Your task to perform on an android device: Do I have any events this weekend? Image 0: 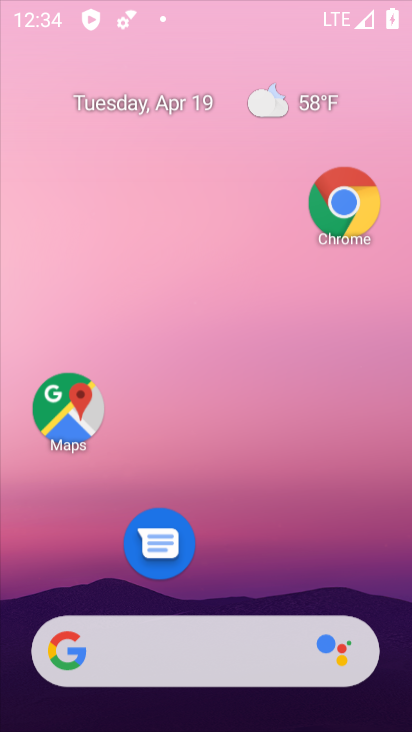
Step 0: click (214, 3)
Your task to perform on an android device: Do I have any events this weekend? Image 1: 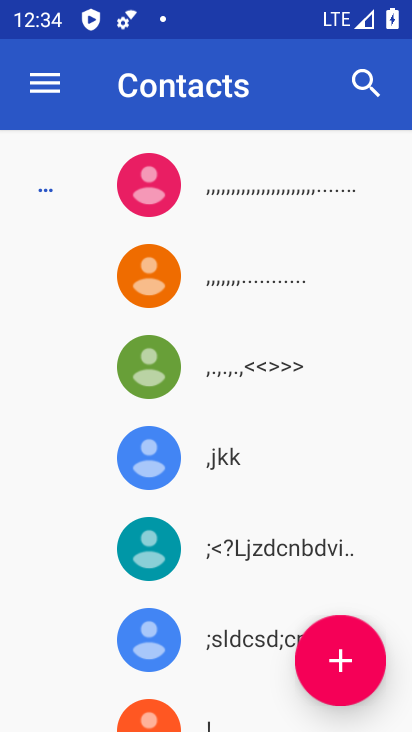
Step 1: press home button
Your task to perform on an android device: Do I have any events this weekend? Image 2: 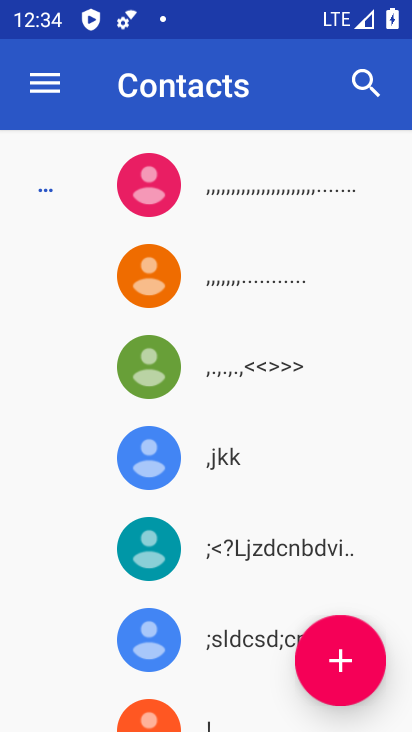
Step 2: press home button
Your task to perform on an android device: Do I have any events this weekend? Image 3: 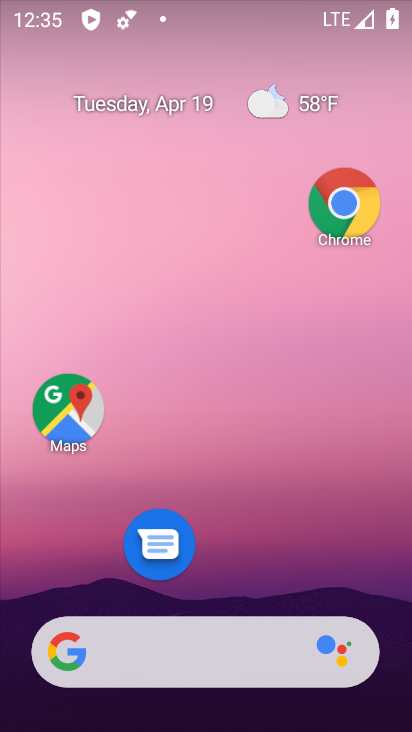
Step 3: drag from (232, 544) to (207, 52)
Your task to perform on an android device: Do I have any events this weekend? Image 4: 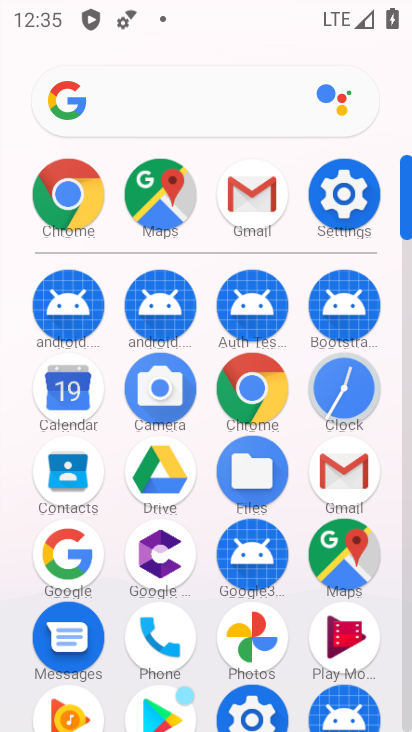
Step 4: click (73, 397)
Your task to perform on an android device: Do I have any events this weekend? Image 5: 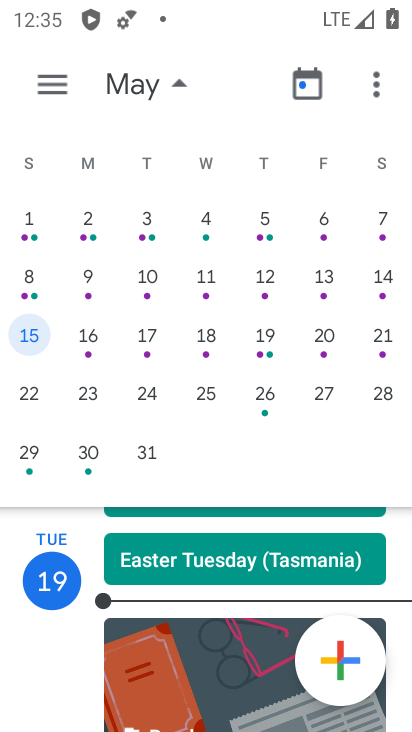
Step 5: click (60, 89)
Your task to perform on an android device: Do I have any events this weekend? Image 6: 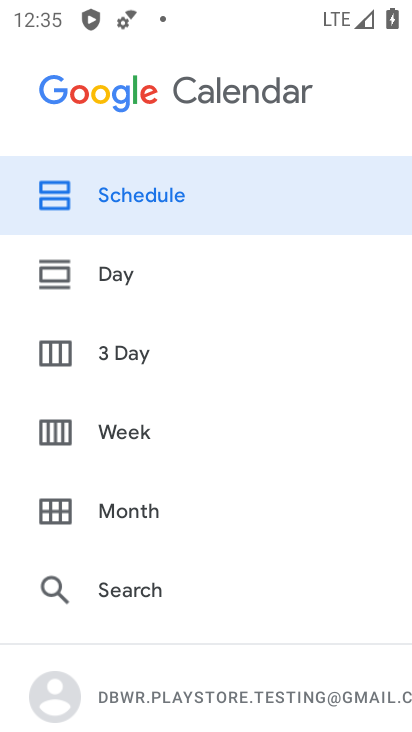
Step 6: drag from (172, 519) to (251, 163)
Your task to perform on an android device: Do I have any events this weekend? Image 7: 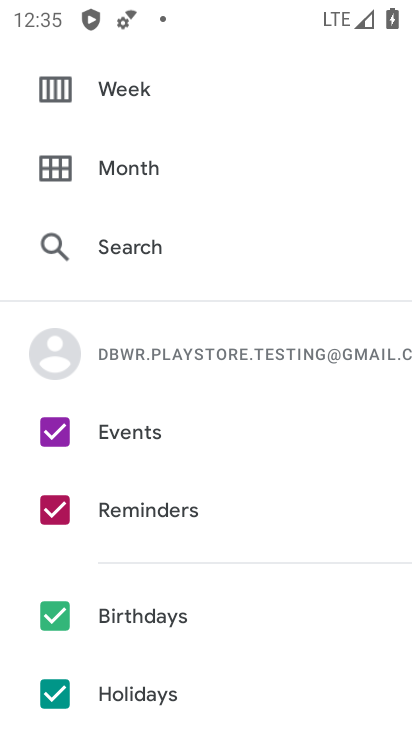
Step 7: drag from (56, 503) to (55, 625)
Your task to perform on an android device: Do I have any events this weekend? Image 8: 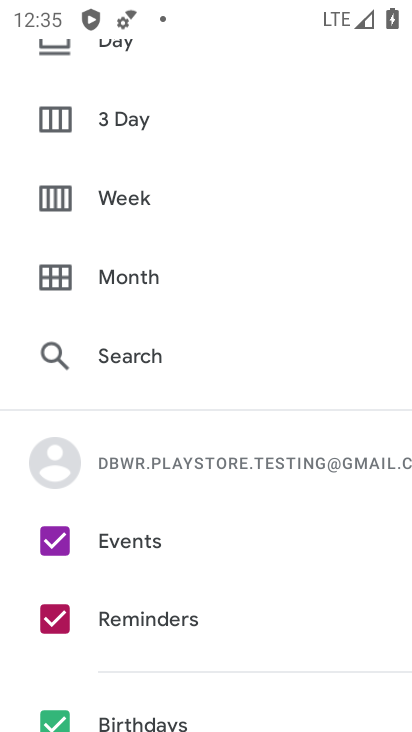
Step 8: click (54, 700)
Your task to perform on an android device: Do I have any events this weekend? Image 9: 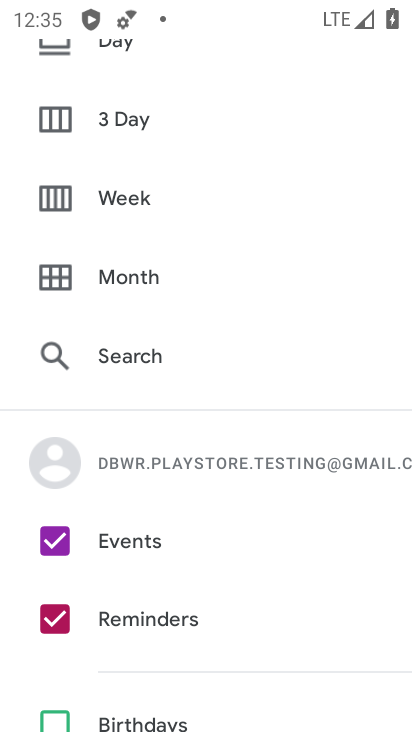
Step 9: drag from (285, 628) to (312, 235)
Your task to perform on an android device: Do I have any events this weekend? Image 10: 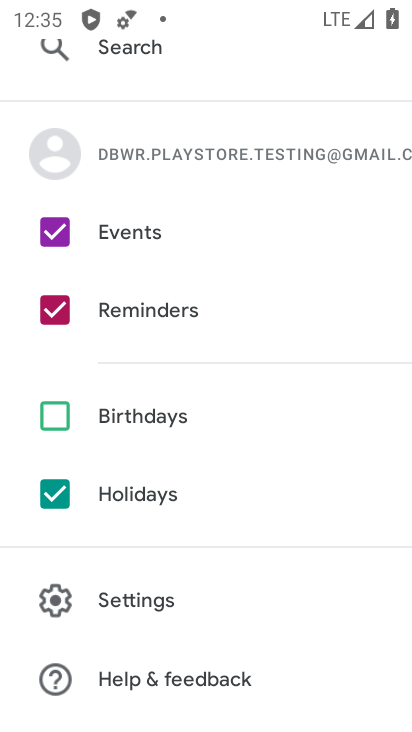
Step 10: click (57, 310)
Your task to perform on an android device: Do I have any events this weekend? Image 11: 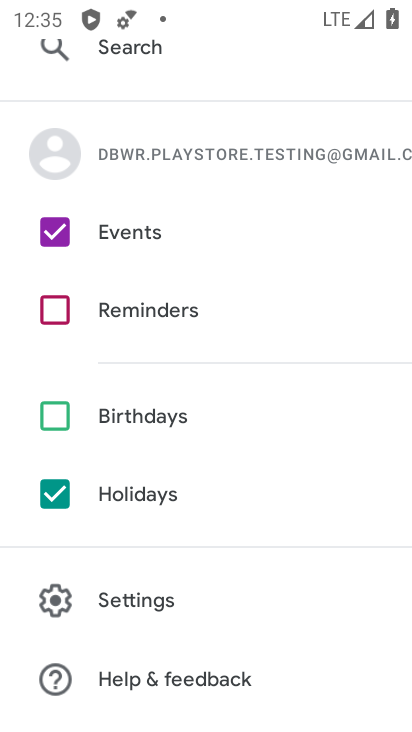
Step 11: click (50, 489)
Your task to perform on an android device: Do I have any events this weekend? Image 12: 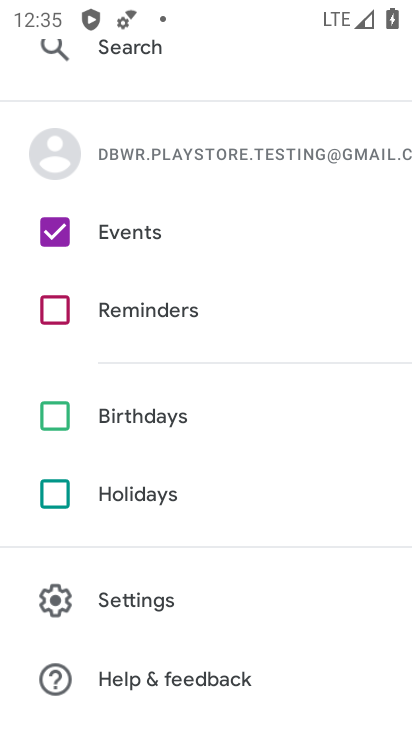
Step 12: drag from (306, 149) to (310, 650)
Your task to perform on an android device: Do I have any events this weekend? Image 13: 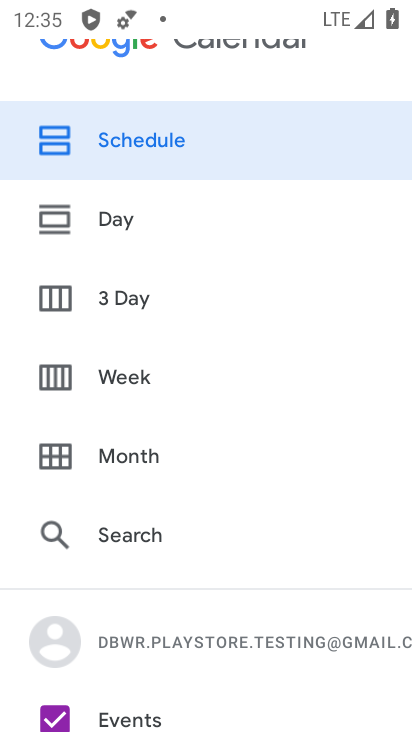
Step 13: click (190, 144)
Your task to perform on an android device: Do I have any events this weekend? Image 14: 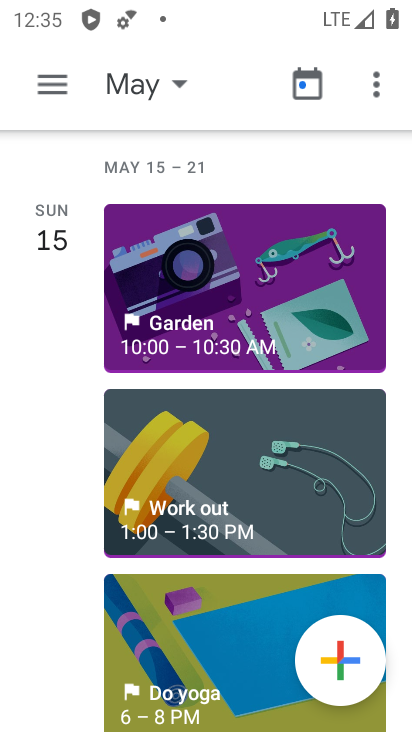
Step 14: click (166, 84)
Your task to perform on an android device: Do I have any events this weekend? Image 15: 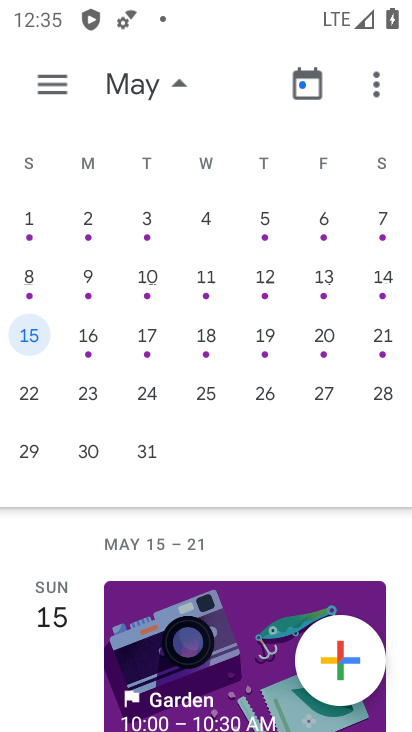
Step 15: drag from (260, 544) to (250, 441)
Your task to perform on an android device: Do I have any events this weekend? Image 16: 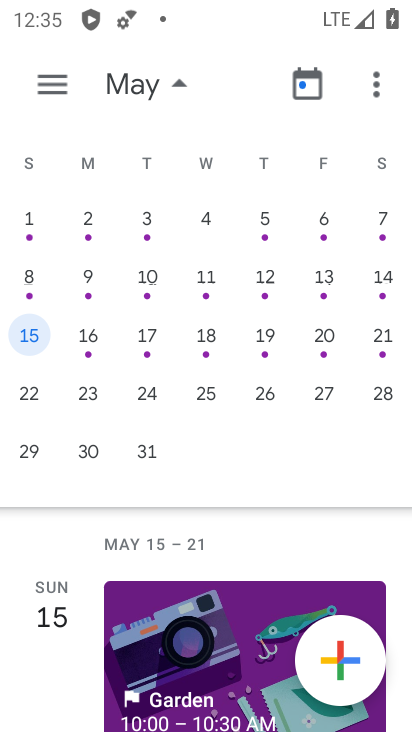
Step 16: drag from (123, 253) to (393, 255)
Your task to perform on an android device: Do I have any events this weekend? Image 17: 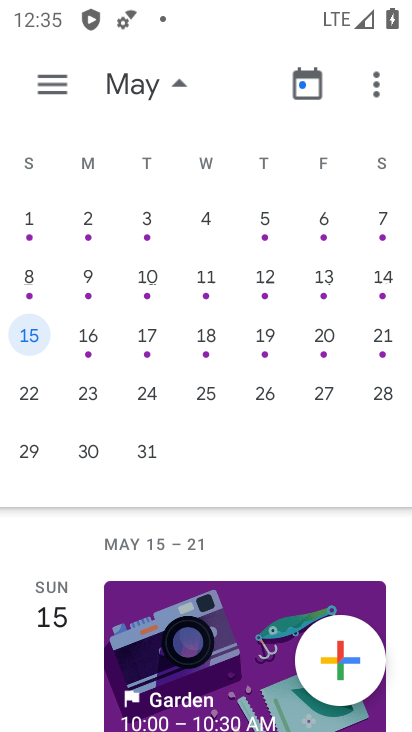
Step 17: drag from (105, 297) to (402, 237)
Your task to perform on an android device: Do I have any events this weekend? Image 18: 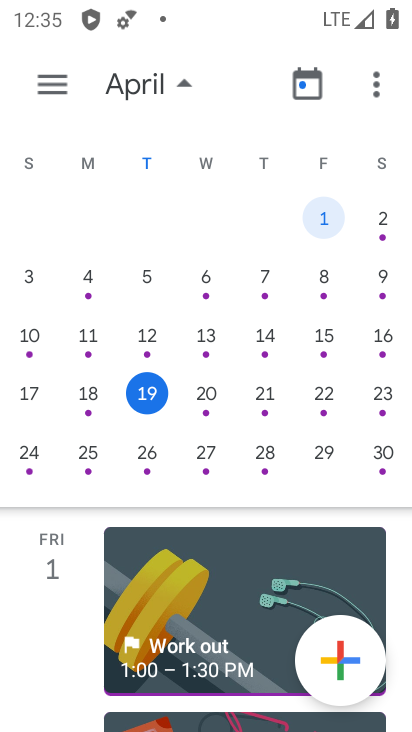
Step 18: click (181, 79)
Your task to perform on an android device: Do I have any events this weekend? Image 19: 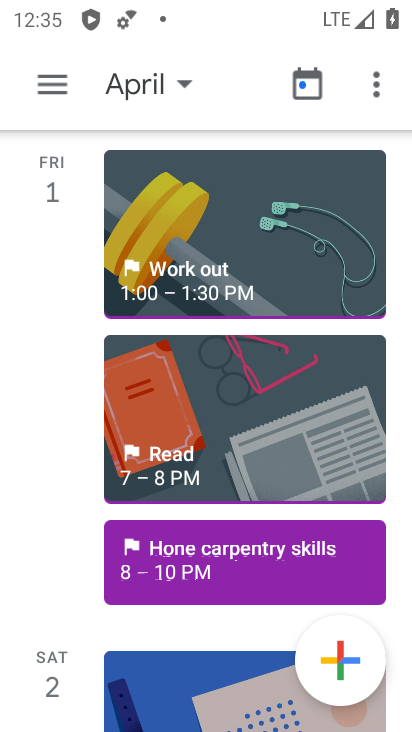
Step 19: click (151, 86)
Your task to perform on an android device: Do I have any events this weekend? Image 20: 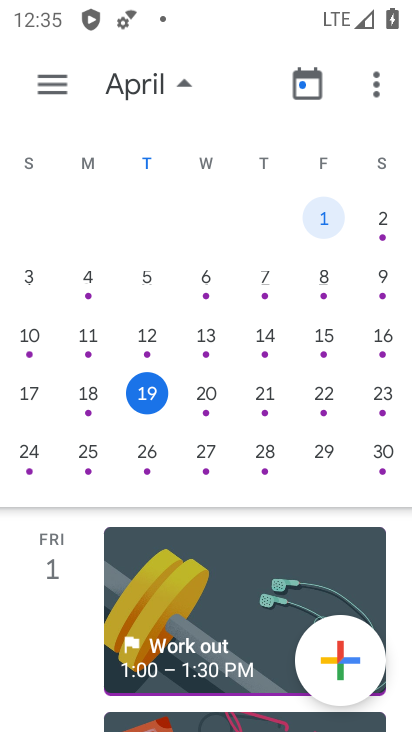
Step 20: click (320, 398)
Your task to perform on an android device: Do I have any events this weekend? Image 21: 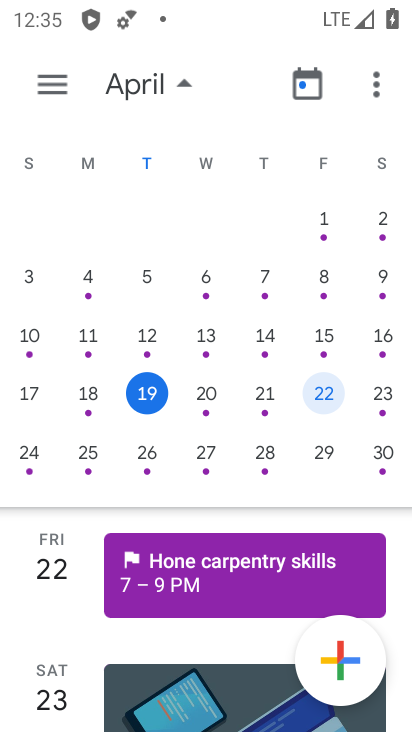
Step 21: click (379, 394)
Your task to perform on an android device: Do I have any events this weekend? Image 22: 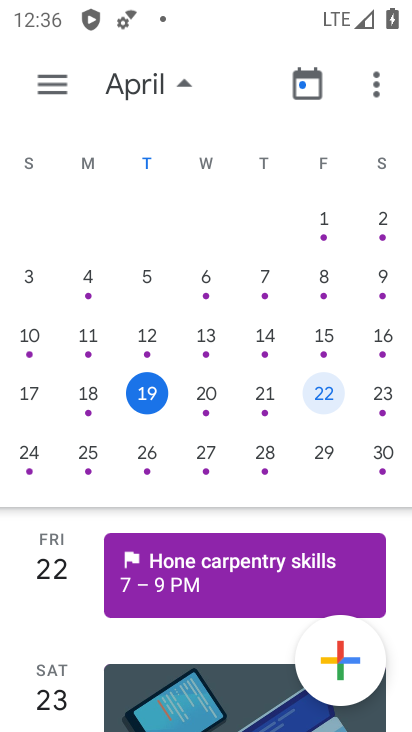
Step 22: click (379, 394)
Your task to perform on an android device: Do I have any events this weekend? Image 23: 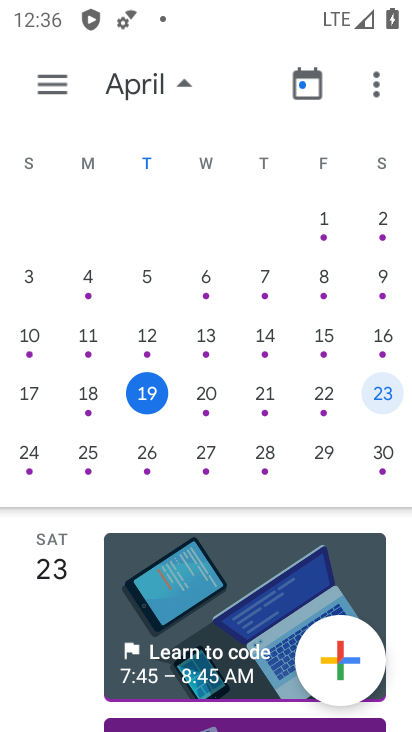
Step 23: task complete